Your task to perform on an android device: Go to privacy settings Image 0: 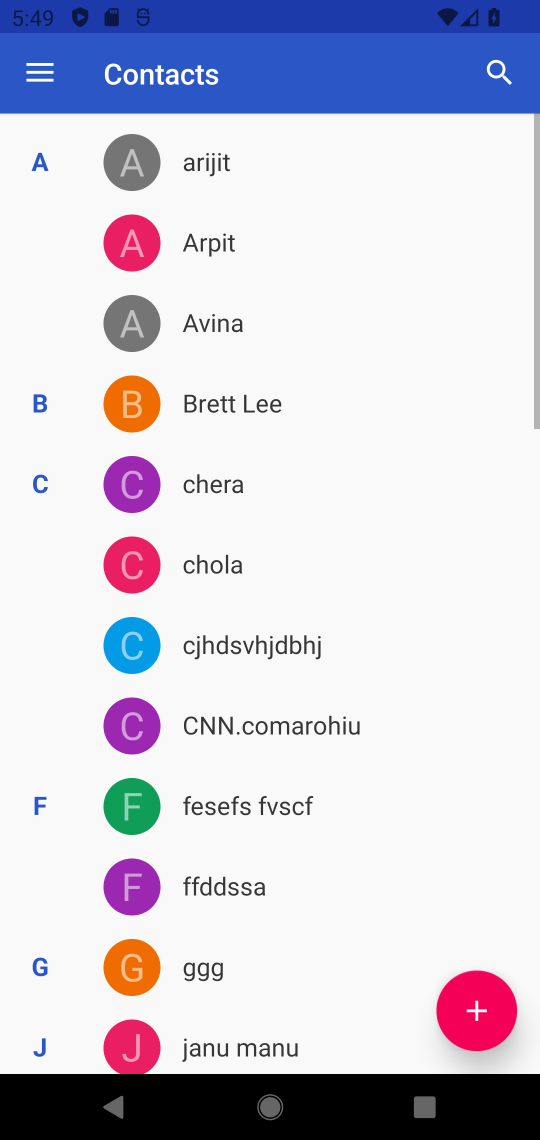
Step 0: press home button
Your task to perform on an android device: Go to privacy settings Image 1: 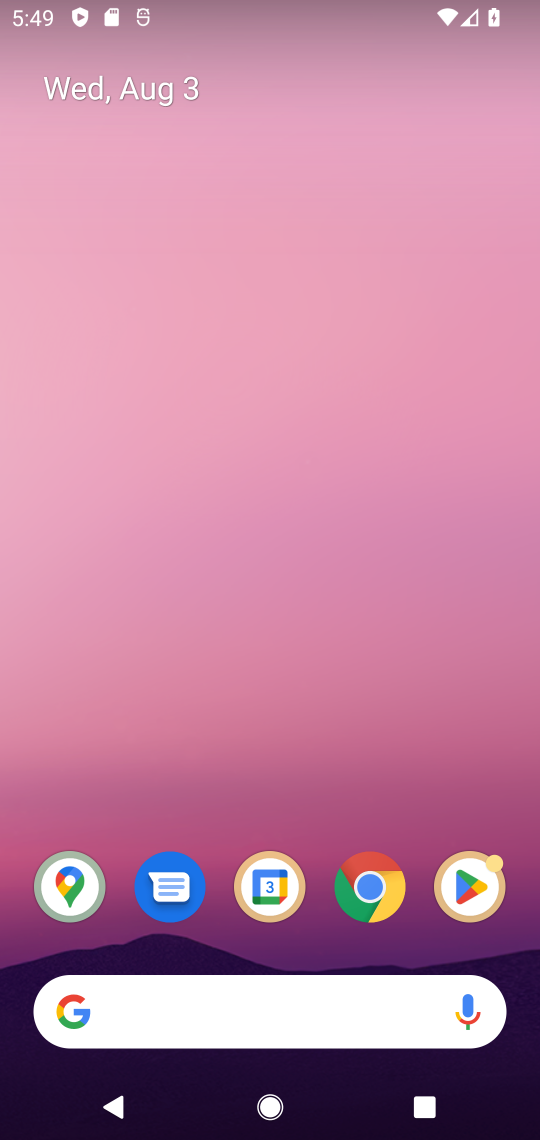
Step 1: drag from (239, 950) to (478, 580)
Your task to perform on an android device: Go to privacy settings Image 2: 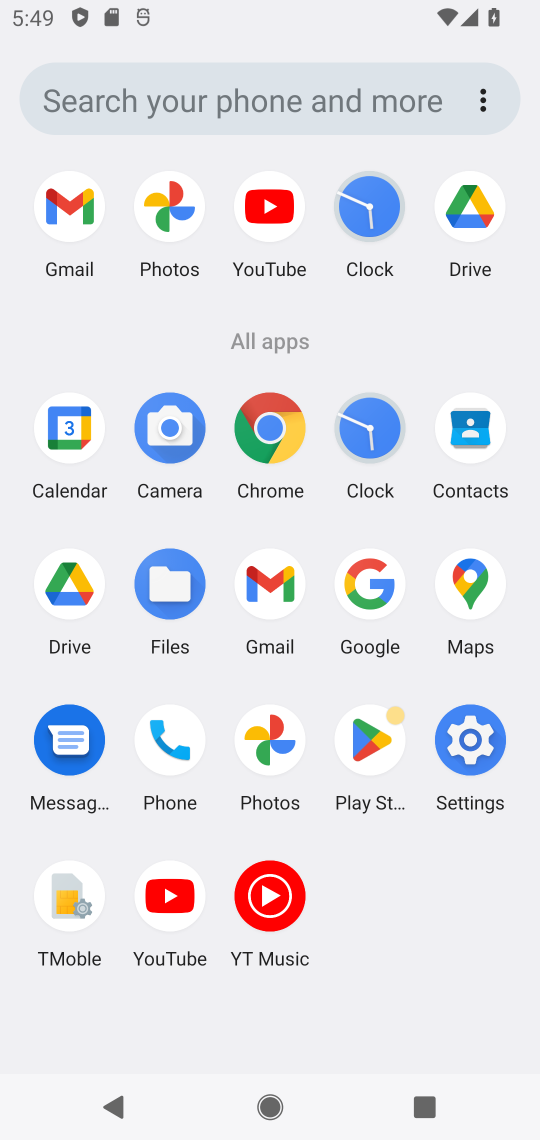
Step 2: click (471, 748)
Your task to perform on an android device: Go to privacy settings Image 3: 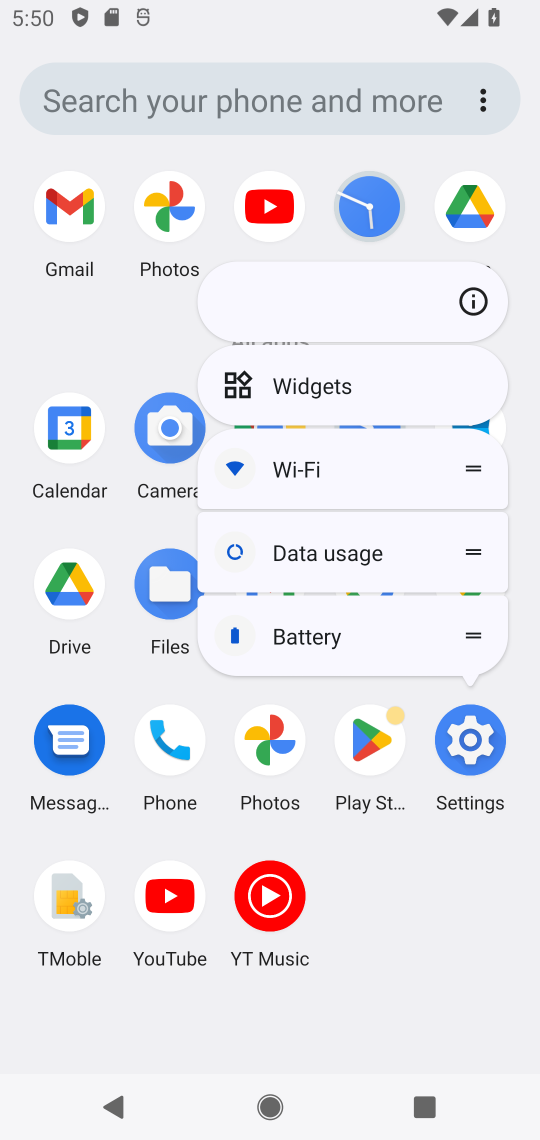
Step 3: click (462, 739)
Your task to perform on an android device: Go to privacy settings Image 4: 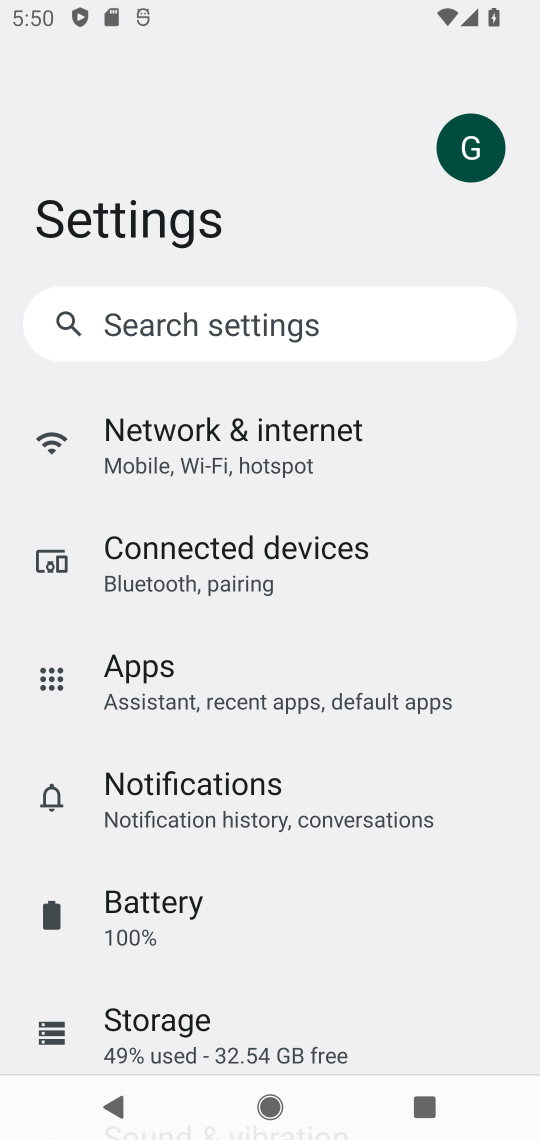
Step 4: drag from (214, 735) to (272, 167)
Your task to perform on an android device: Go to privacy settings Image 5: 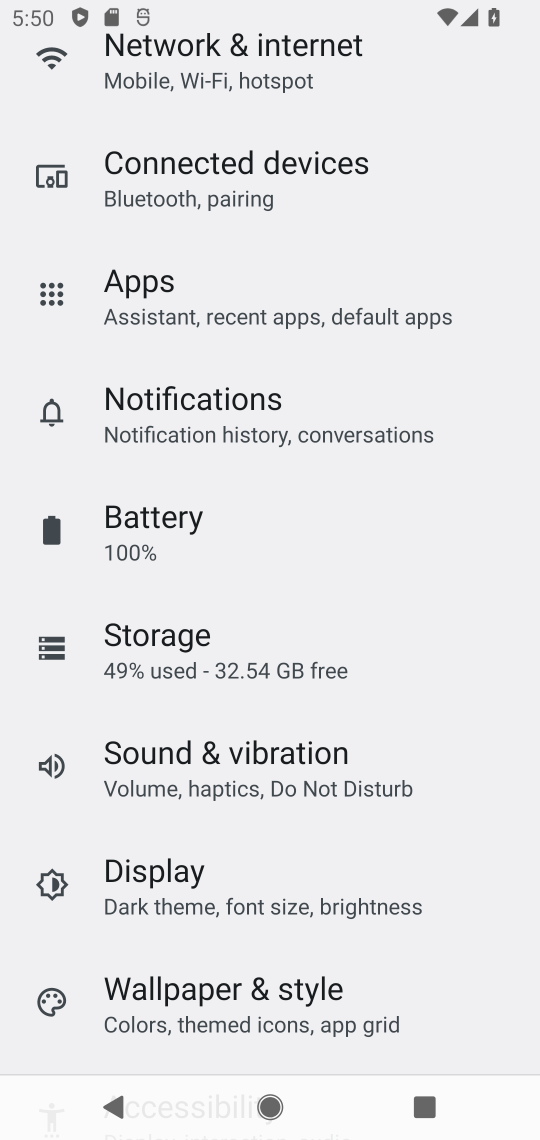
Step 5: drag from (268, 880) to (267, 327)
Your task to perform on an android device: Go to privacy settings Image 6: 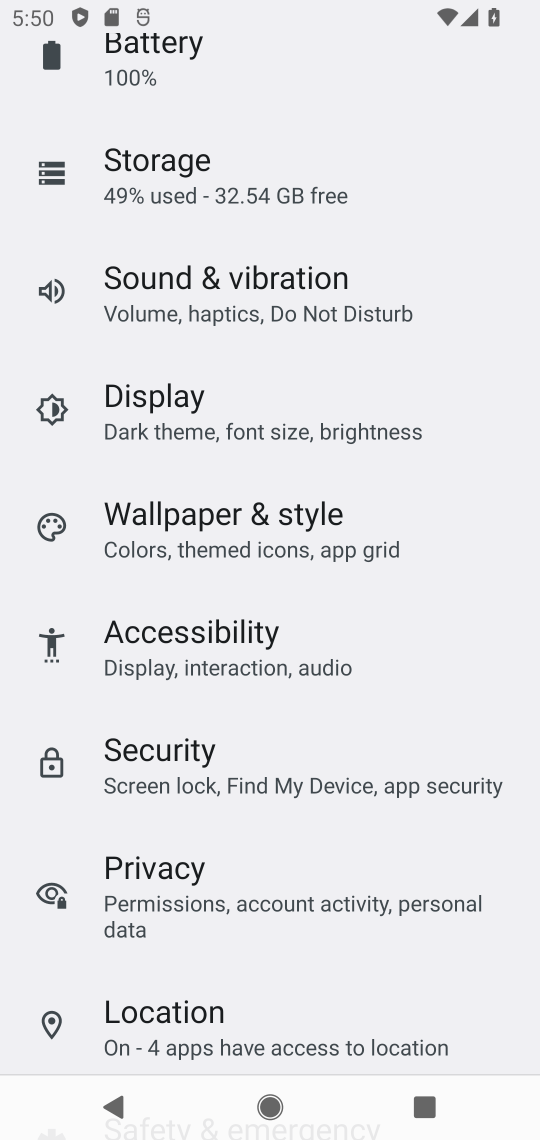
Step 6: click (146, 900)
Your task to perform on an android device: Go to privacy settings Image 7: 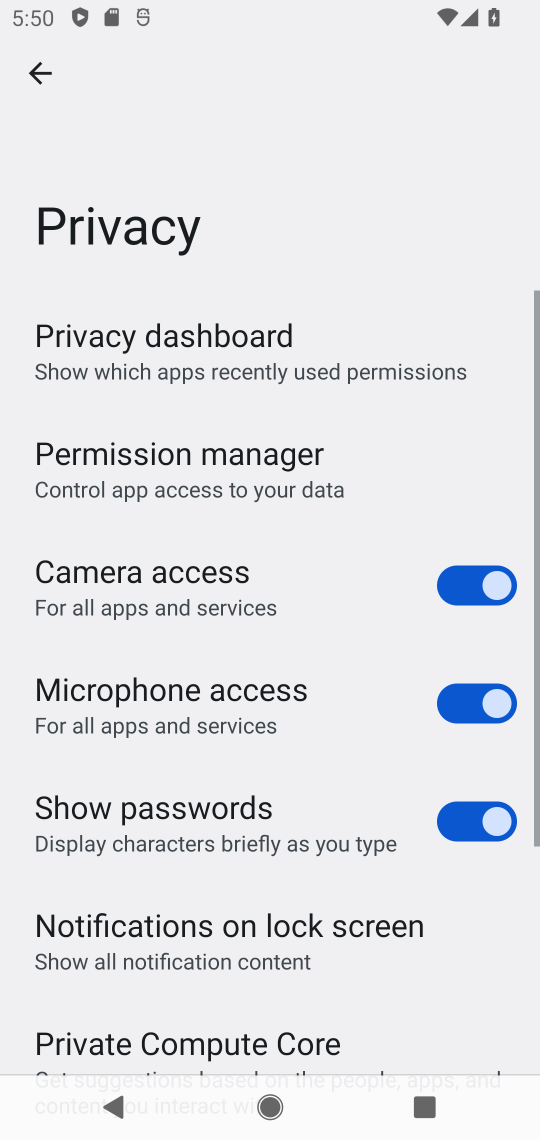
Step 7: task complete